Your task to perform on an android device: Open calendar and show me the first week of next month Image 0: 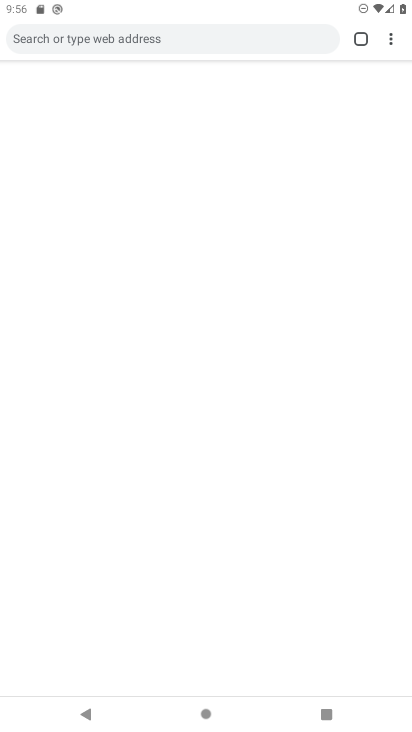
Step 0: drag from (242, 699) to (238, 442)
Your task to perform on an android device: Open calendar and show me the first week of next month Image 1: 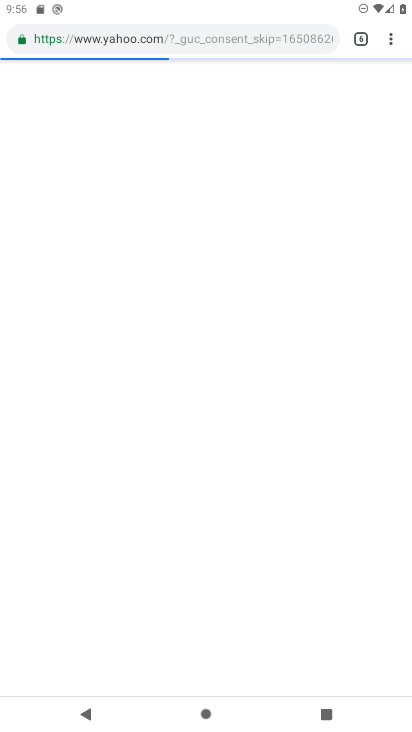
Step 1: press home button
Your task to perform on an android device: Open calendar and show me the first week of next month Image 2: 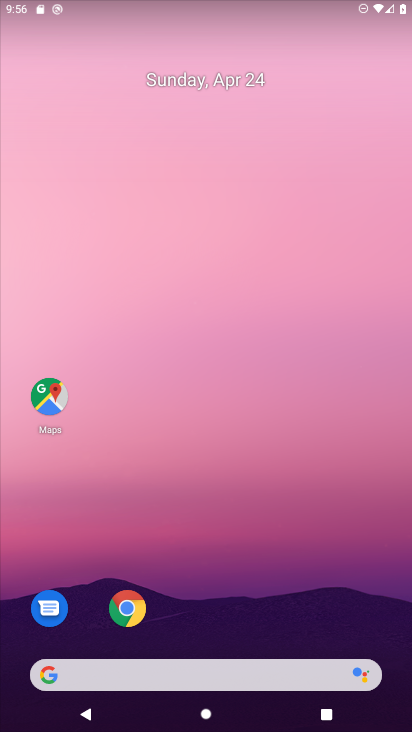
Step 2: drag from (264, 700) to (207, 184)
Your task to perform on an android device: Open calendar and show me the first week of next month Image 3: 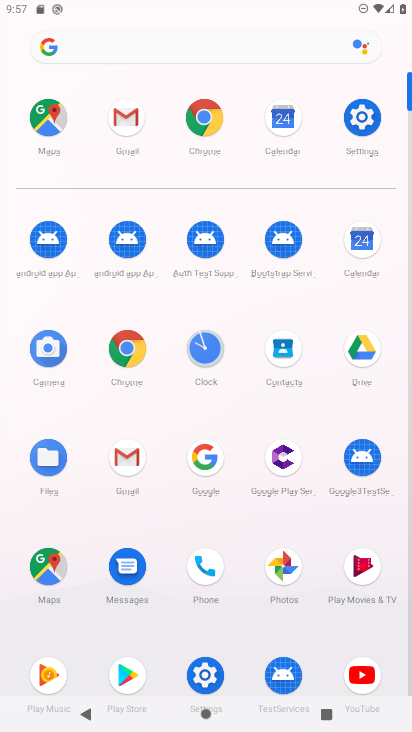
Step 3: click (360, 250)
Your task to perform on an android device: Open calendar and show me the first week of next month Image 4: 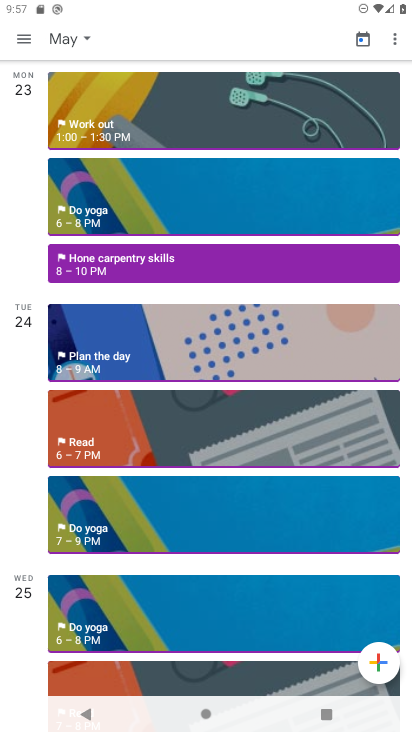
Step 4: click (32, 37)
Your task to perform on an android device: Open calendar and show me the first week of next month Image 5: 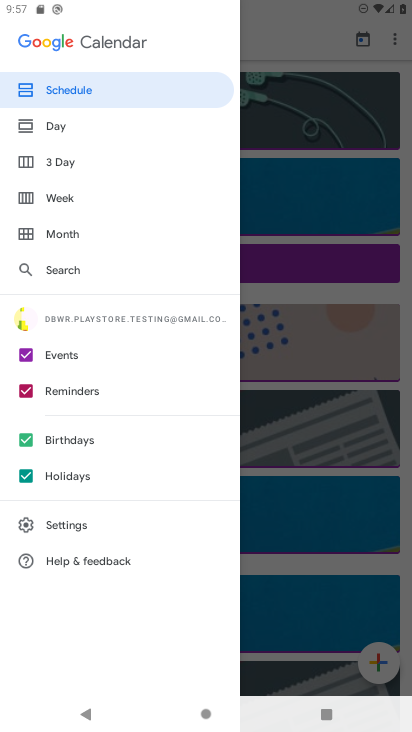
Step 5: click (69, 239)
Your task to perform on an android device: Open calendar and show me the first week of next month Image 6: 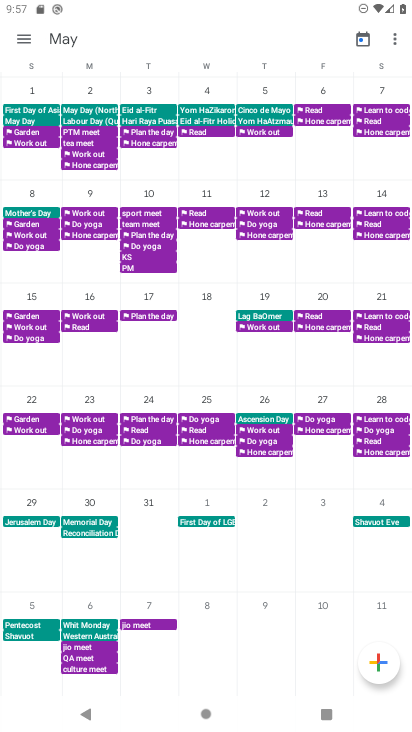
Step 6: drag from (375, 359) to (18, 336)
Your task to perform on an android device: Open calendar and show me the first week of next month Image 7: 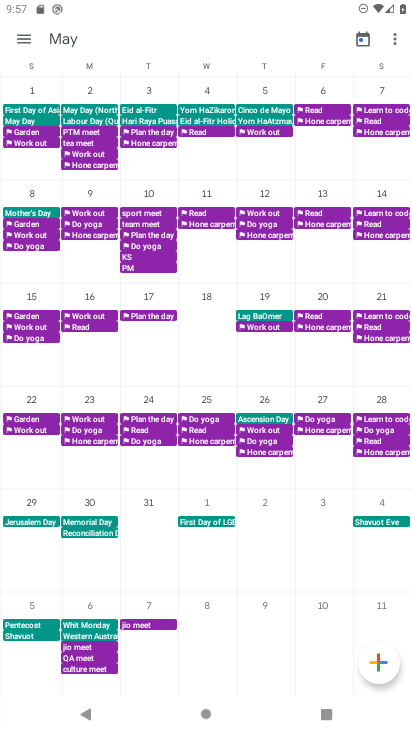
Step 7: click (87, 93)
Your task to perform on an android device: Open calendar and show me the first week of next month Image 8: 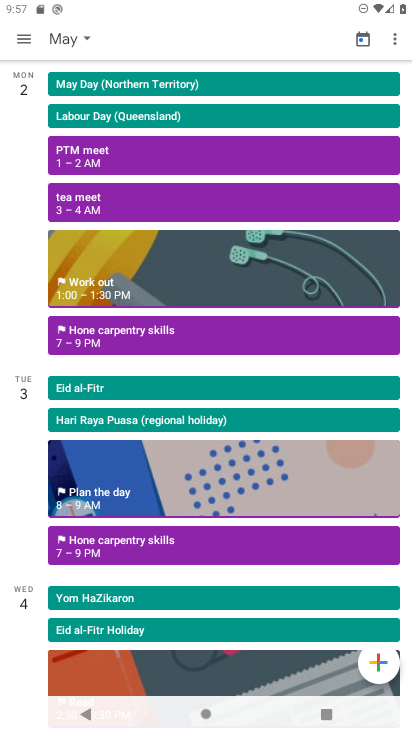
Step 8: task complete